Your task to perform on an android device: open a new tab in the chrome app Image 0: 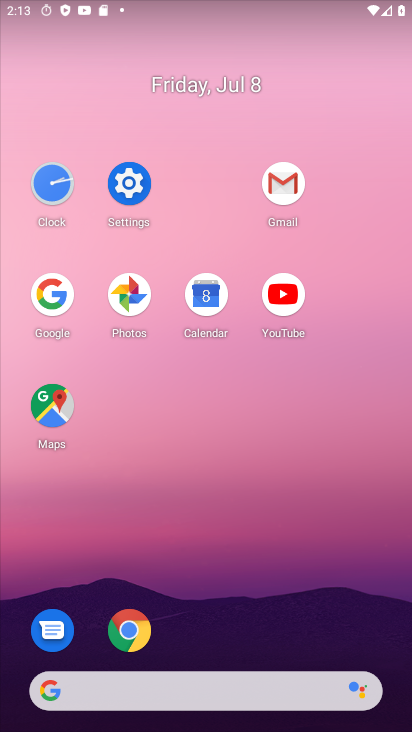
Step 0: click (130, 628)
Your task to perform on an android device: open a new tab in the chrome app Image 1: 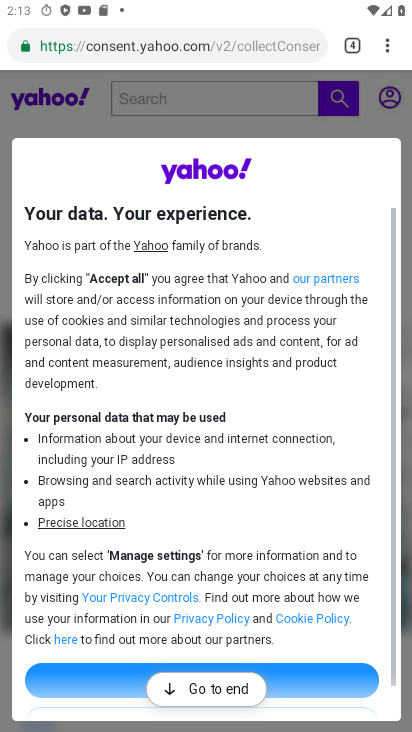
Step 1: click (350, 44)
Your task to perform on an android device: open a new tab in the chrome app Image 2: 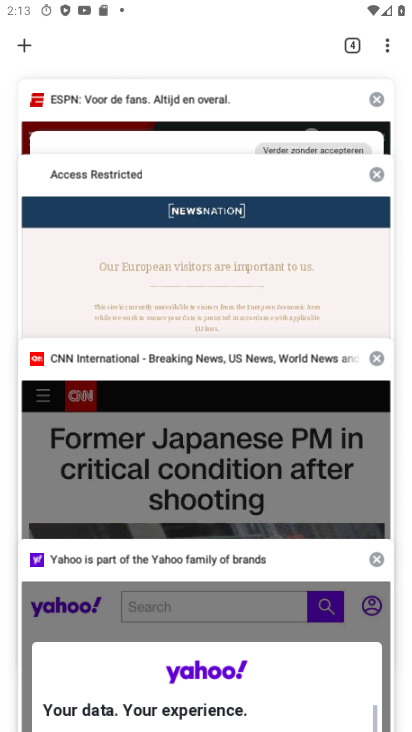
Step 2: click (21, 39)
Your task to perform on an android device: open a new tab in the chrome app Image 3: 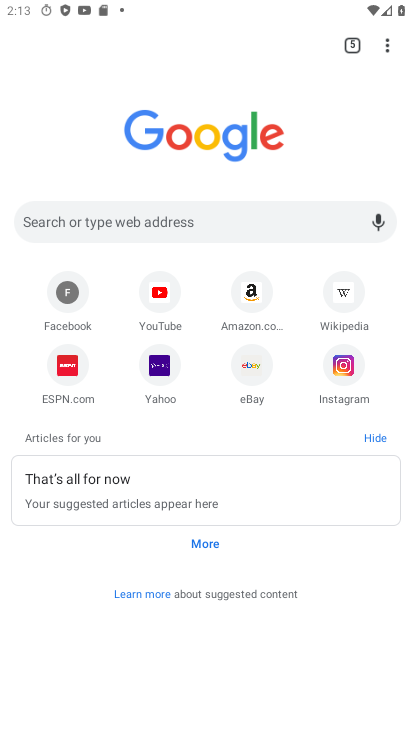
Step 3: task complete